Your task to perform on an android device: turn on notifications settings in the gmail app Image 0: 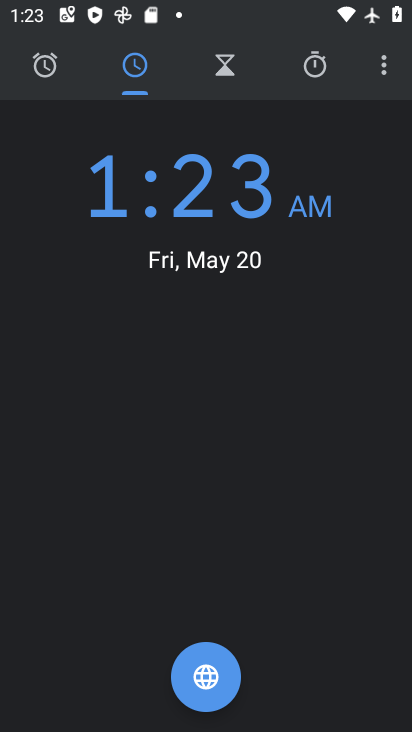
Step 0: press home button
Your task to perform on an android device: turn on notifications settings in the gmail app Image 1: 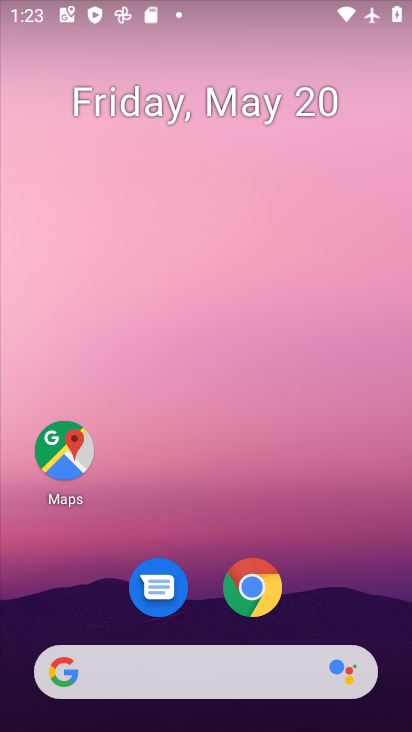
Step 1: drag from (263, 483) to (154, 14)
Your task to perform on an android device: turn on notifications settings in the gmail app Image 2: 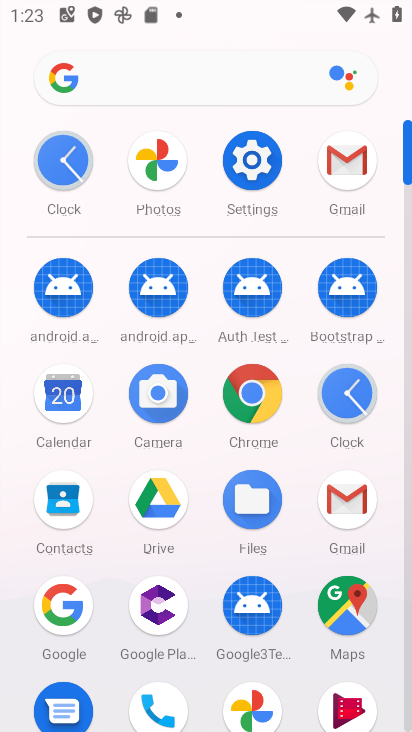
Step 2: click (330, 166)
Your task to perform on an android device: turn on notifications settings in the gmail app Image 3: 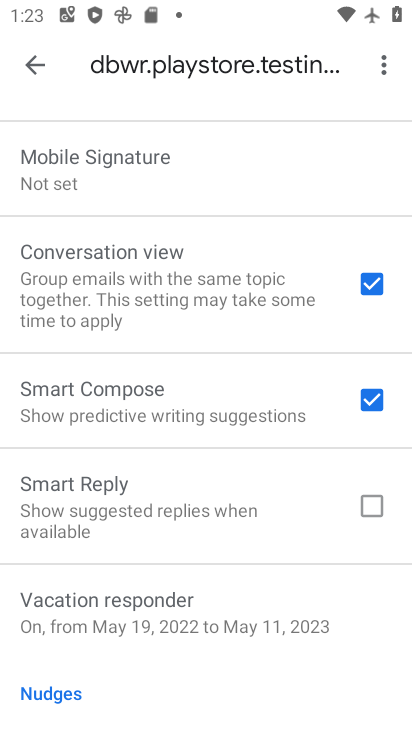
Step 3: drag from (260, 466) to (188, 163)
Your task to perform on an android device: turn on notifications settings in the gmail app Image 4: 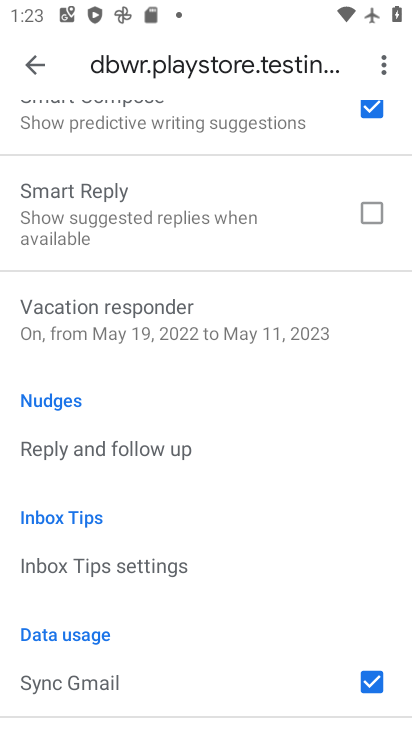
Step 4: click (37, 58)
Your task to perform on an android device: turn on notifications settings in the gmail app Image 5: 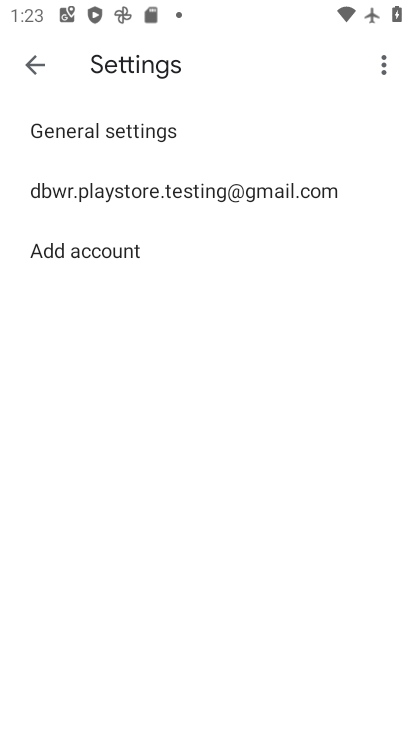
Step 5: click (142, 131)
Your task to perform on an android device: turn on notifications settings in the gmail app Image 6: 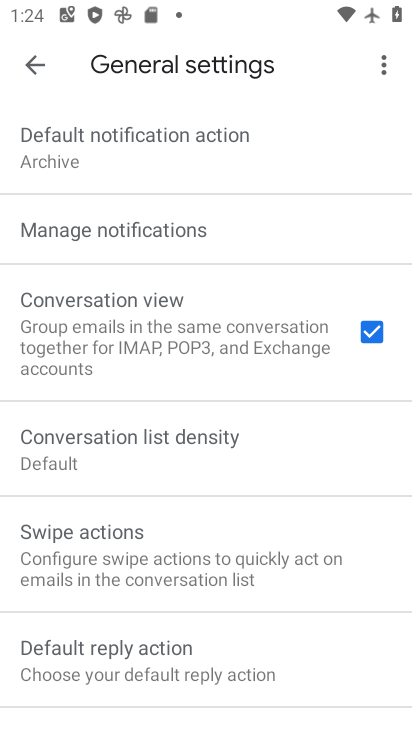
Step 6: click (149, 227)
Your task to perform on an android device: turn on notifications settings in the gmail app Image 7: 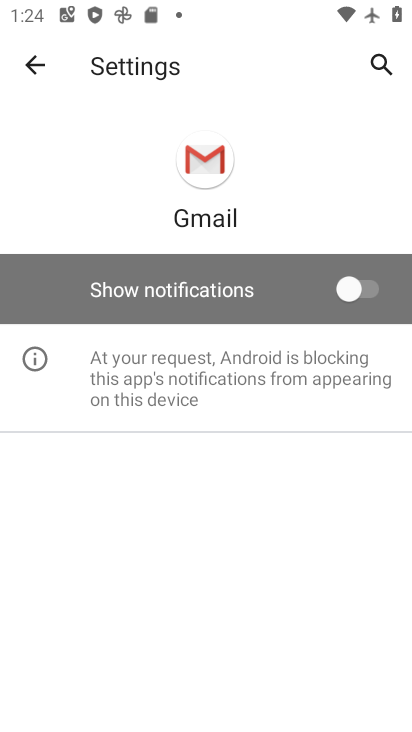
Step 7: click (356, 286)
Your task to perform on an android device: turn on notifications settings in the gmail app Image 8: 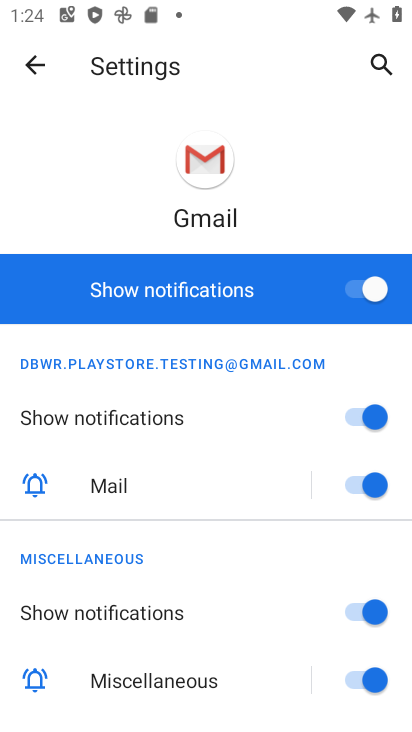
Step 8: task complete